Your task to perform on an android device: install app "TextNow: Call + Text Unlimited" Image 0: 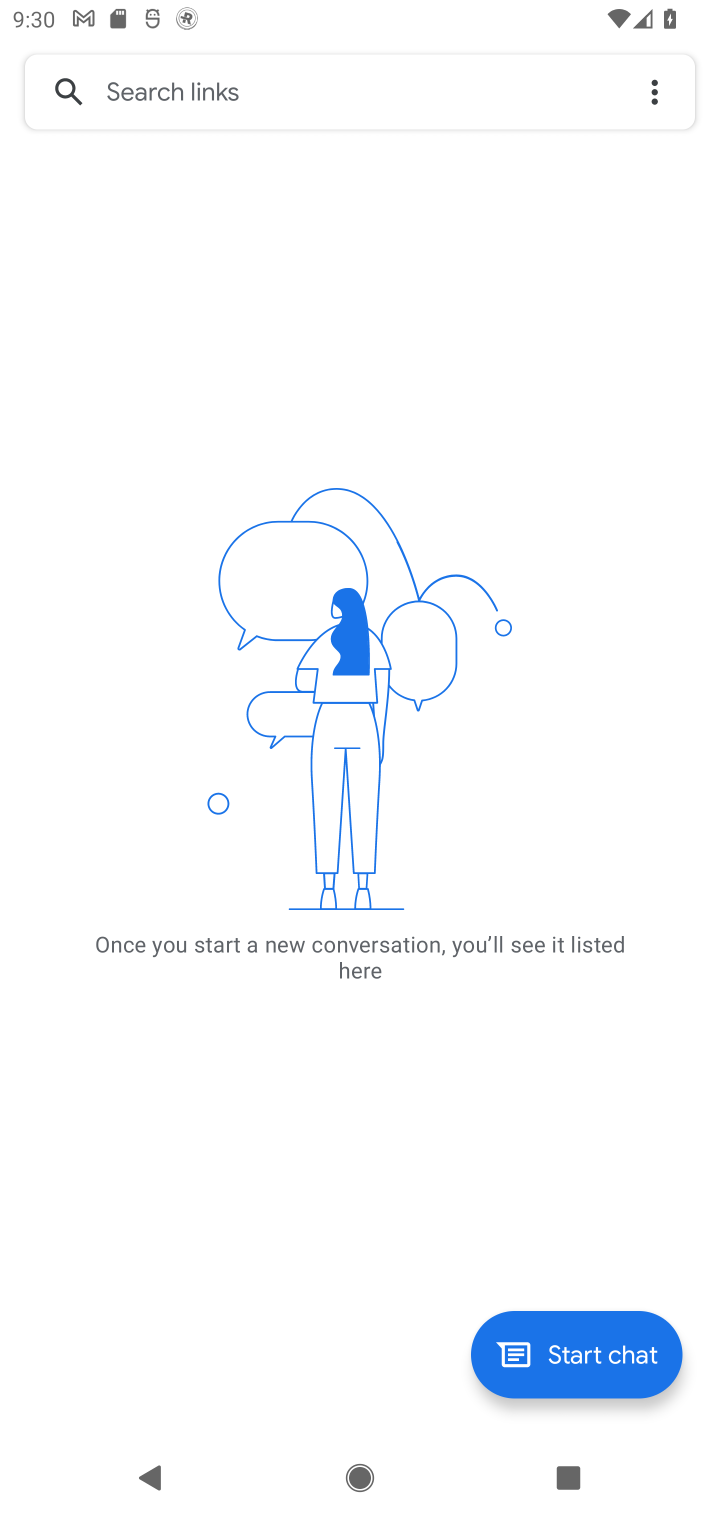
Step 0: press home button
Your task to perform on an android device: install app "TextNow: Call + Text Unlimited" Image 1: 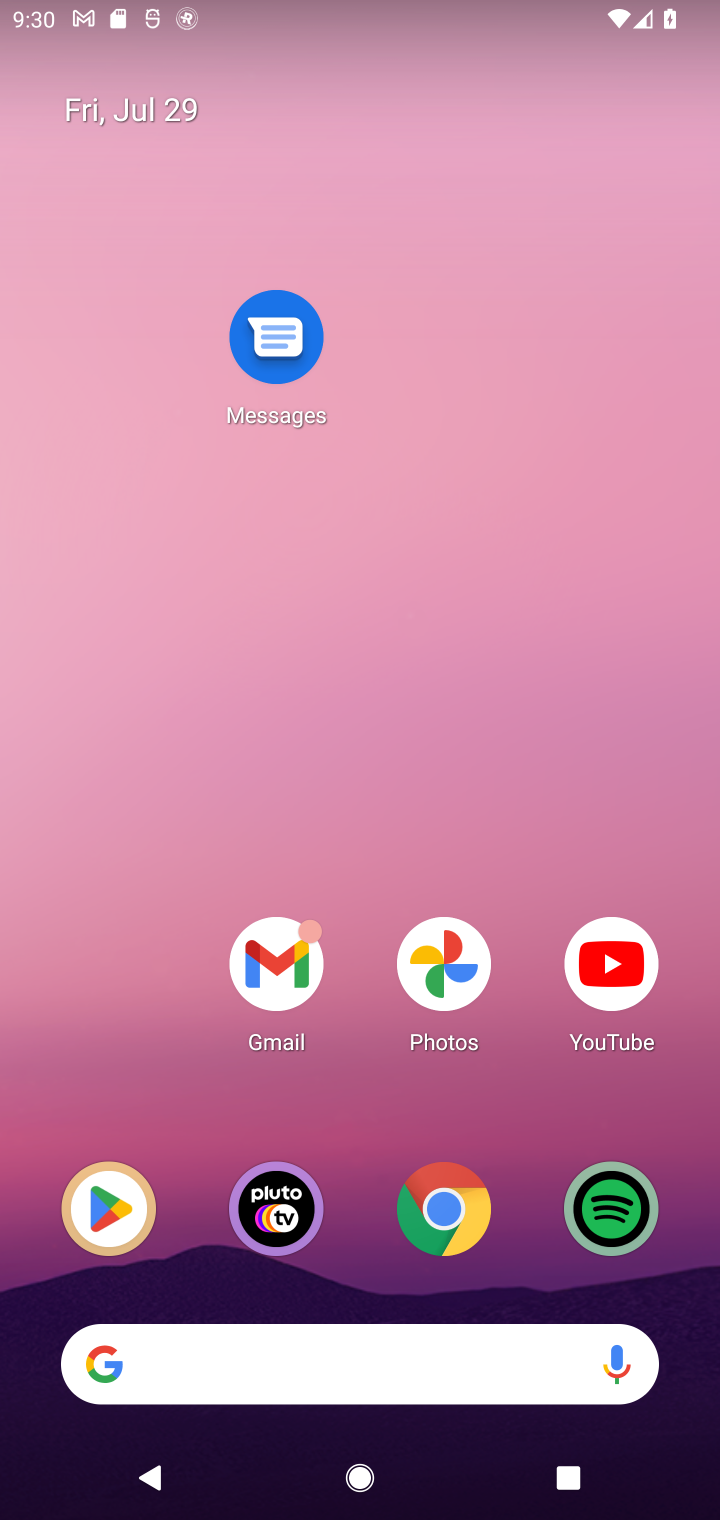
Step 1: drag from (254, 1365) to (458, 54)
Your task to perform on an android device: install app "TextNow: Call + Text Unlimited" Image 2: 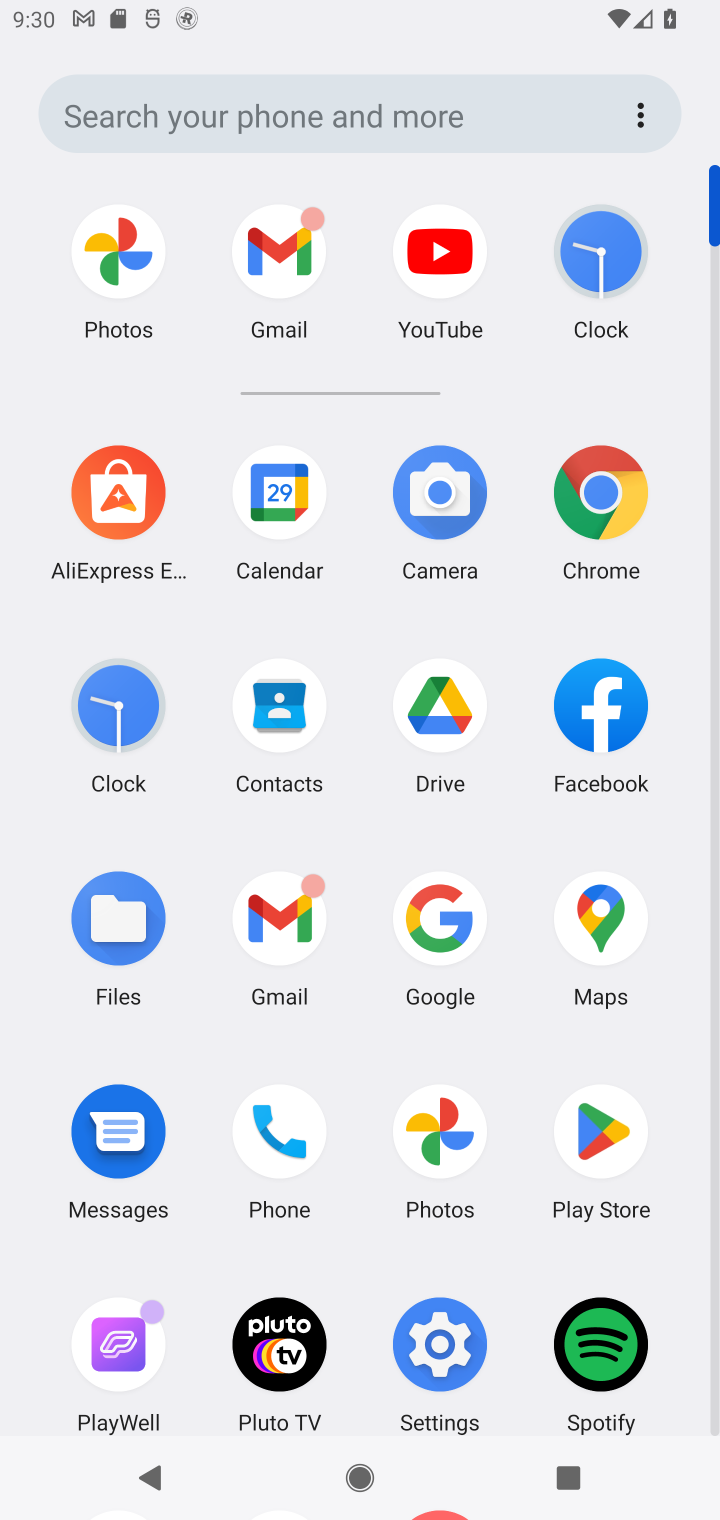
Step 2: click (605, 1136)
Your task to perform on an android device: install app "TextNow: Call + Text Unlimited" Image 3: 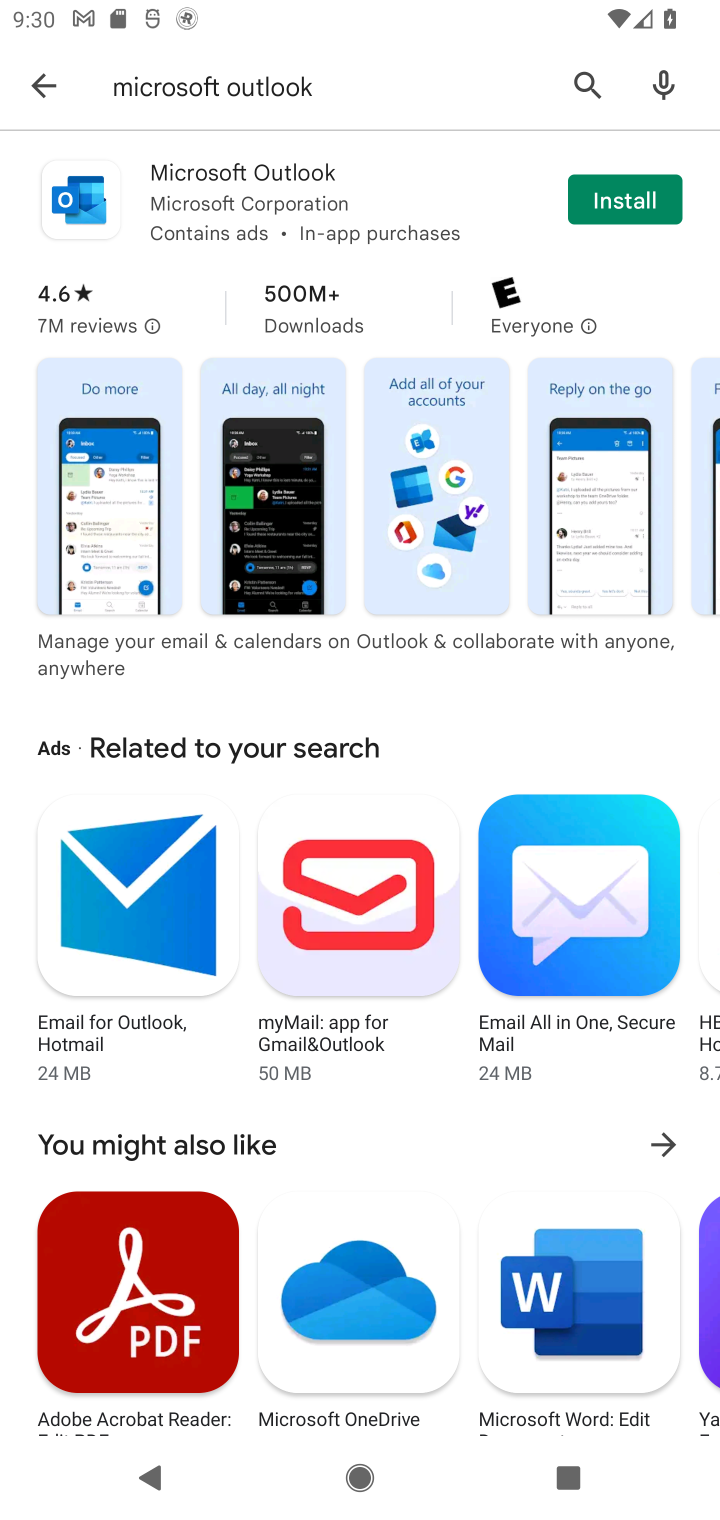
Step 3: click (579, 81)
Your task to perform on an android device: install app "TextNow: Call + Text Unlimited" Image 4: 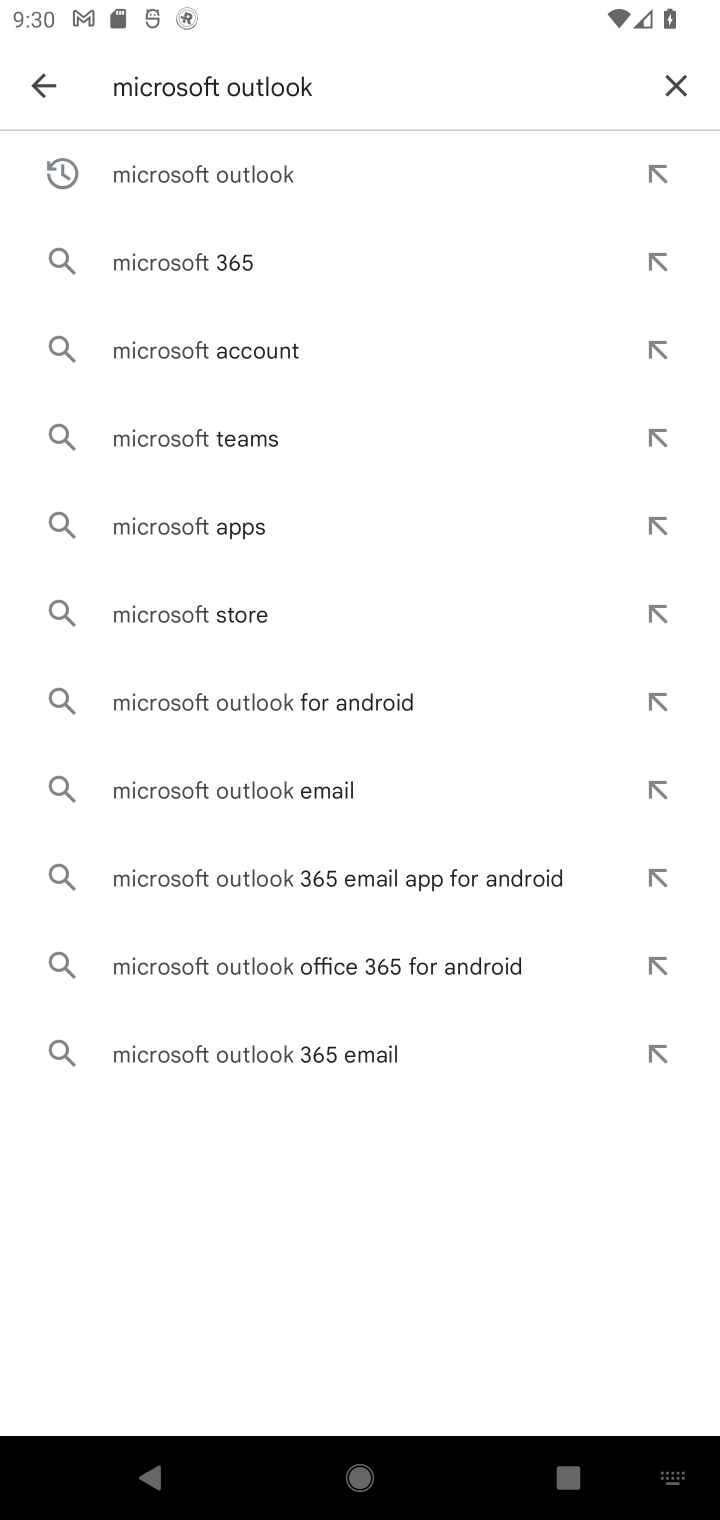
Step 4: click (676, 94)
Your task to perform on an android device: install app "TextNow: Call + Text Unlimited" Image 5: 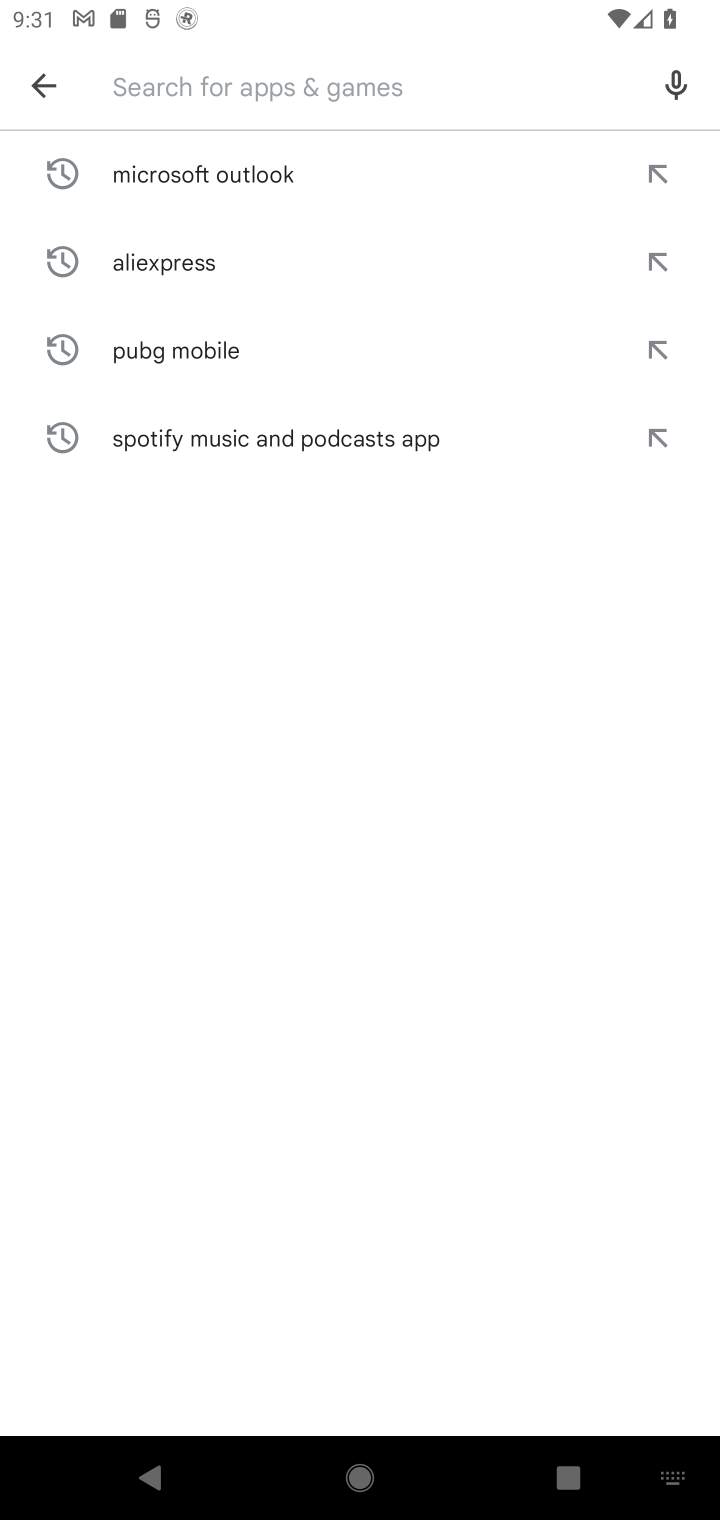
Step 5: click (295, 91)
Your task to perform on an android device: install app "TextNow: Call + Text Unlimited" Image 6: 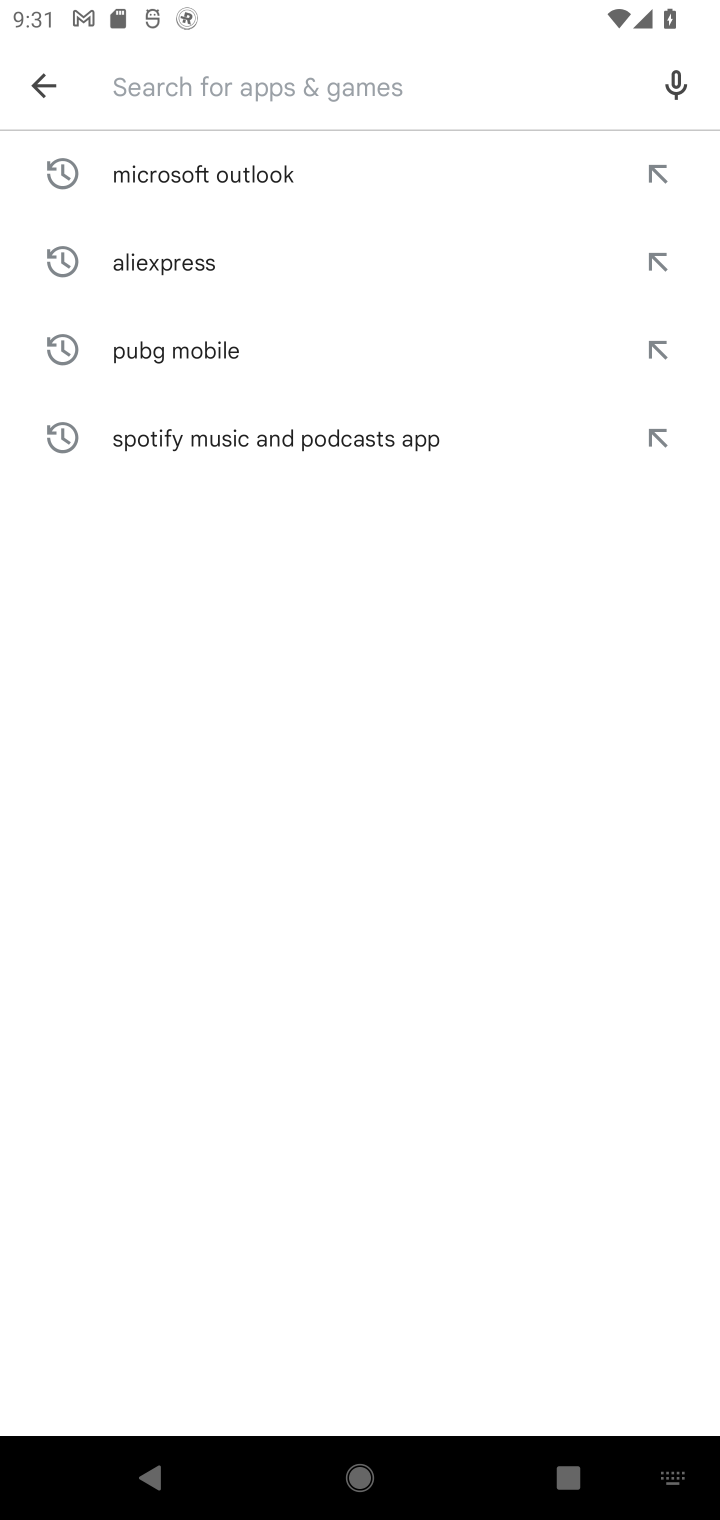
Step 6: type "TextNow: Call + Text Unlimited"
Your task to perform on an android device: install app "TextNow: Call + Text Unlimited" Image 7: 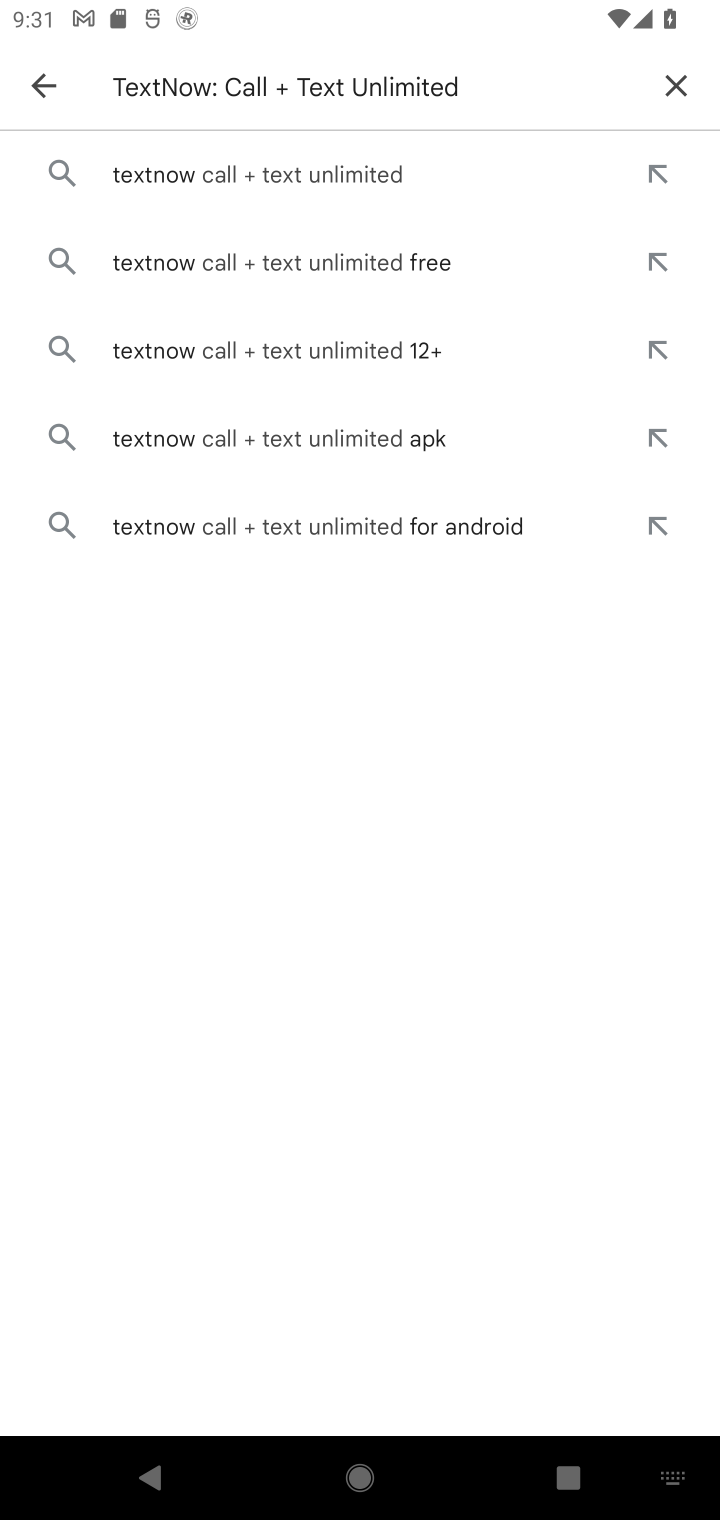
Step 7: click (260, 187)
Your task to perform on an android device: install app "TextNow: Call + Text Unlimited" Image 8: 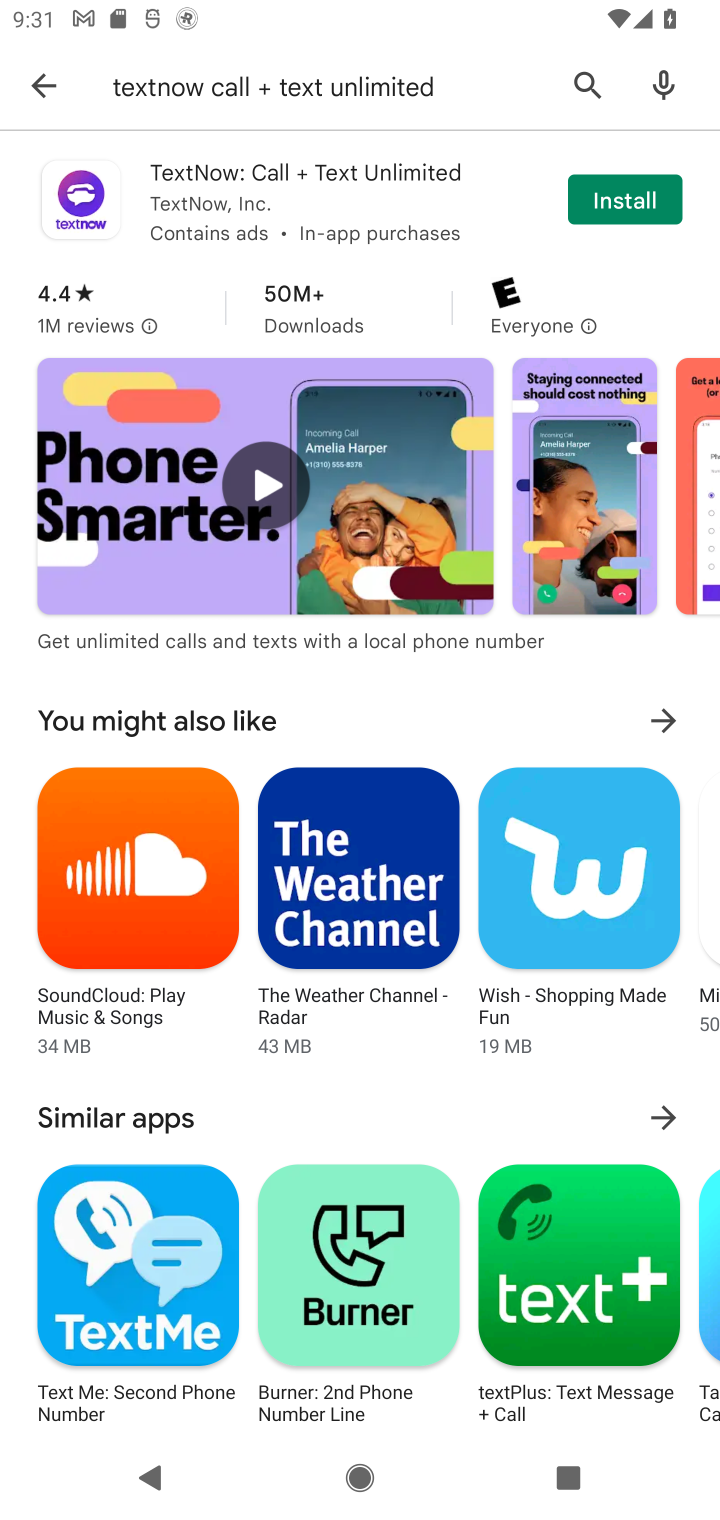
Step 8: click (627, 202)
Your task to perform on an android device: install app "TextNow: Call + Text Unlimited" Image 9: 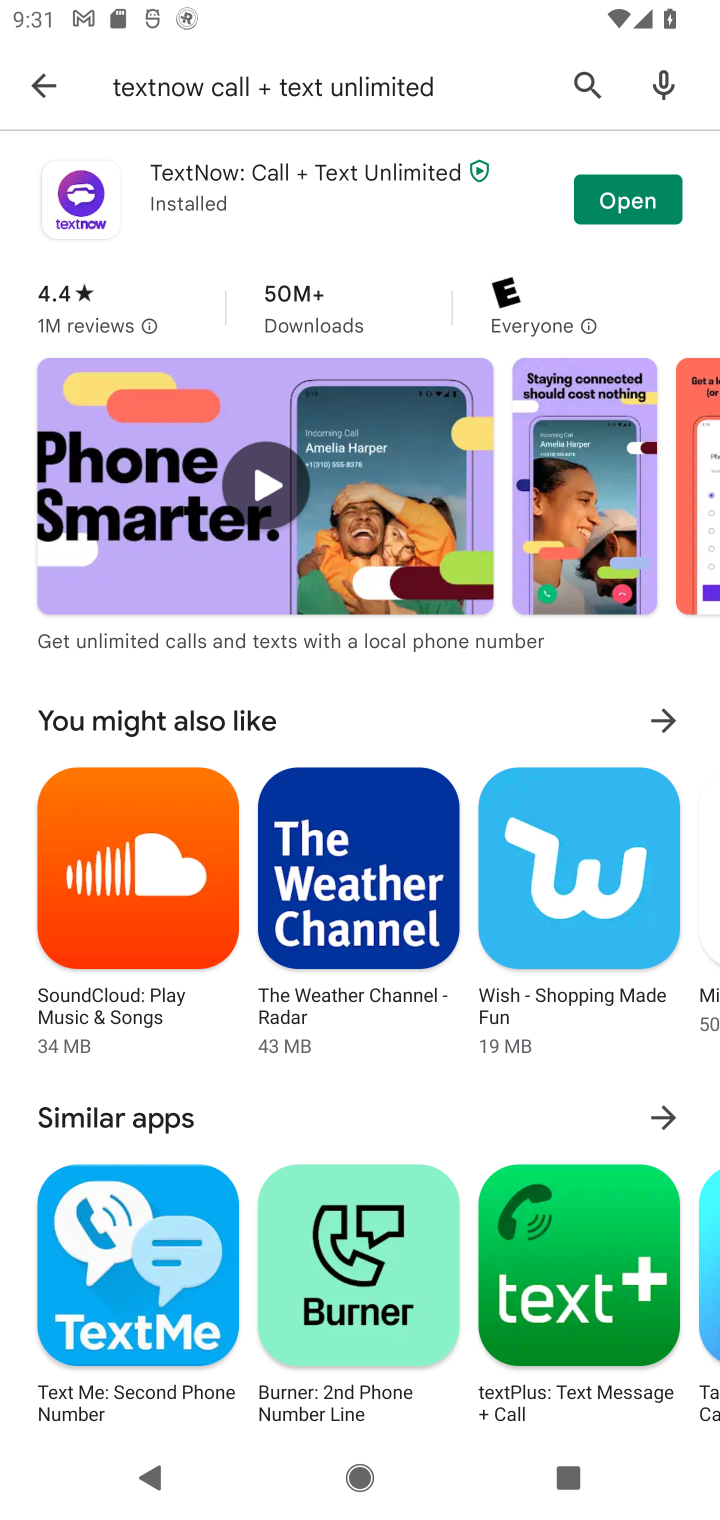
Step 9: task complete